Your task to perform on an android device: Search for Italian restaurants on Maps Image 0: 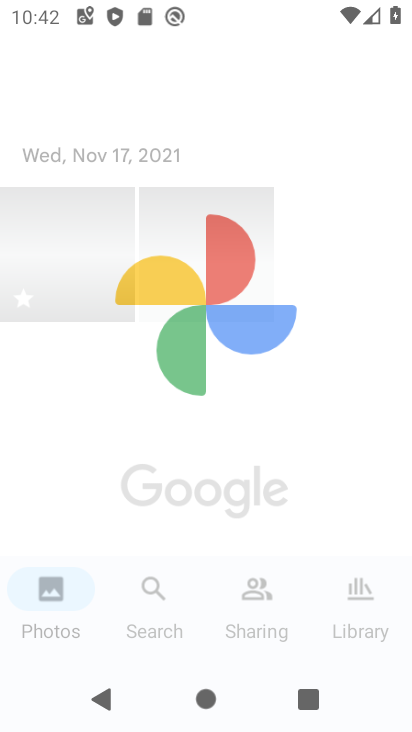
Step 0: drag from (359, 536) to (401, 263)
Your task to perform on an android device: Search for Italian restaurants on Maps Image 1: 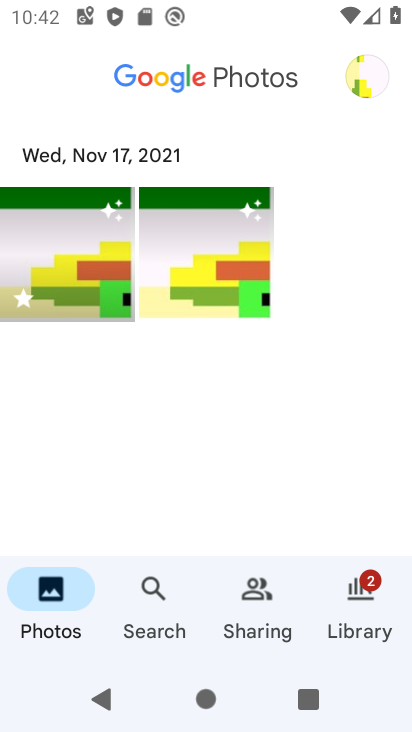
Step 1: press home button
Your task to perform on an android device: Search for Italian restaurants on Maps Image 2: 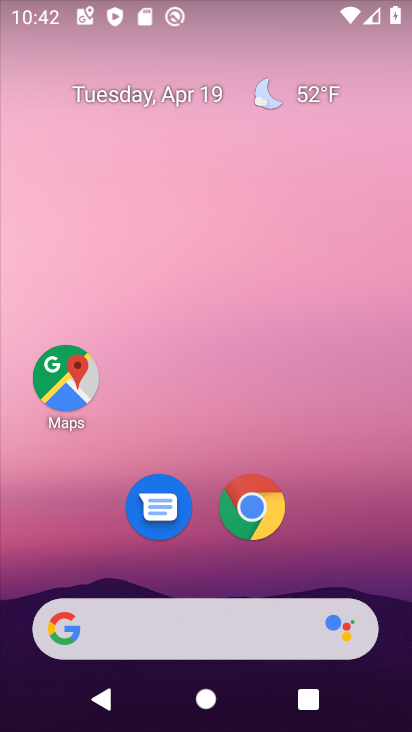
Step 2: drag from (320, 514) to (319, 71)
Your task to perform on an android device: Search for Italian restaurants on Maps Image 3: 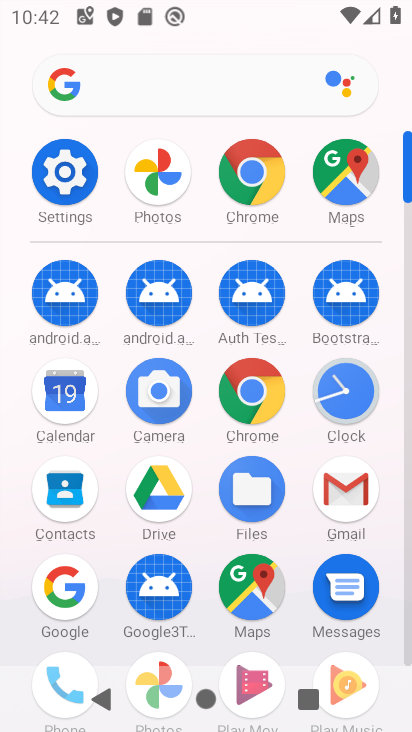
Step 3: click (252, 593)
Your task to perform on an android device: Search for Italian restaurants on Maps Image 4: 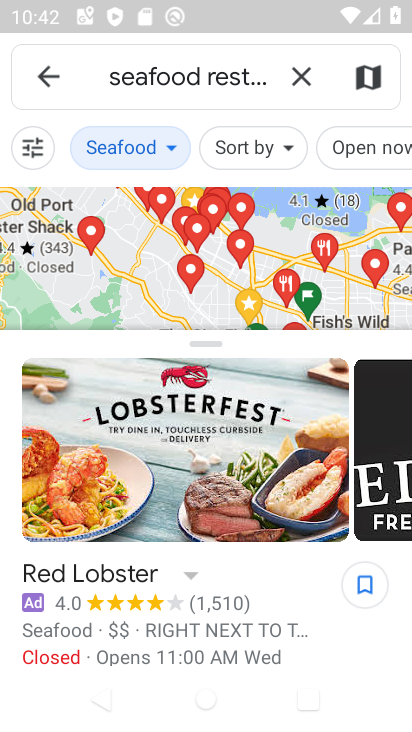
Step 4: click (223, 82)
Your task to perform on an android device: Search for Italian restaurants on Maps Image 5: 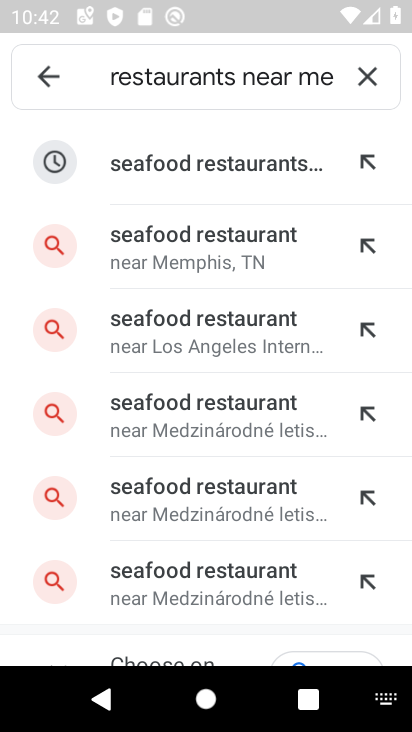
Step 5: click (372, 71)
Your task to perform on an android device: Search for Italian restaurants on Maps Image 6: 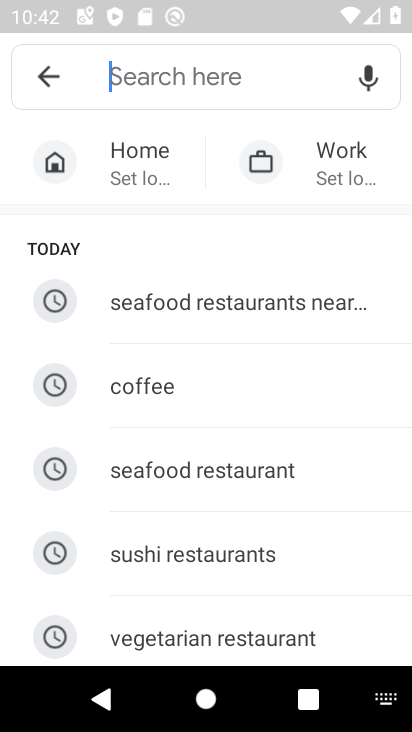
Step 6: click (220, 79)
Your task to perform on an android device: Search for Italian restaurants on Maps Image 7: 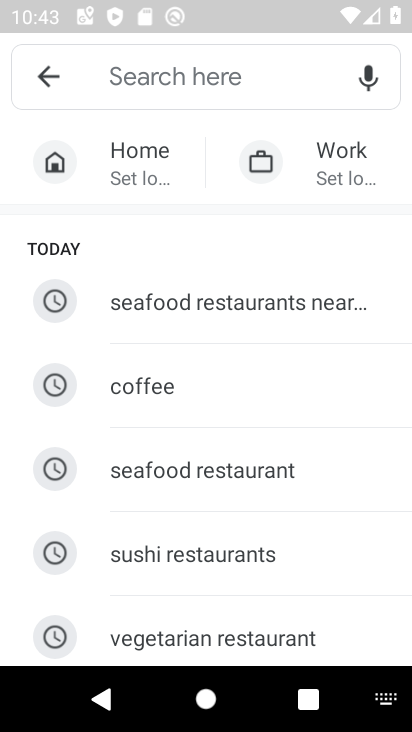
Step 7: type "italian restaurants"
Your task to perform on an android device: Search for Italian restaurants on Maps Image 8: 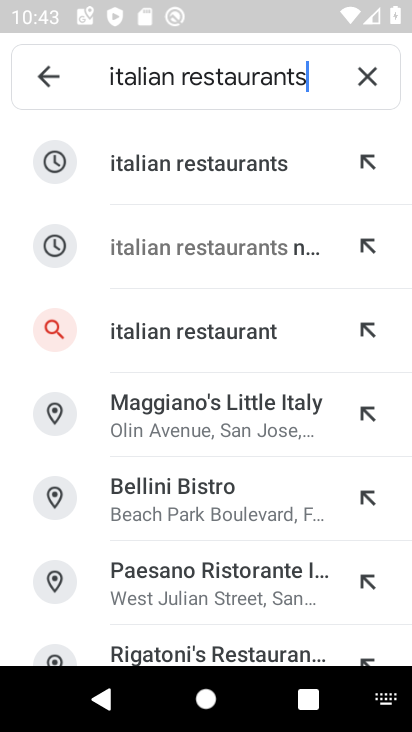
Step 8: click (261, 164)
Your task to perform on an android device: Search for Italian restaurants on Maps Image 9: 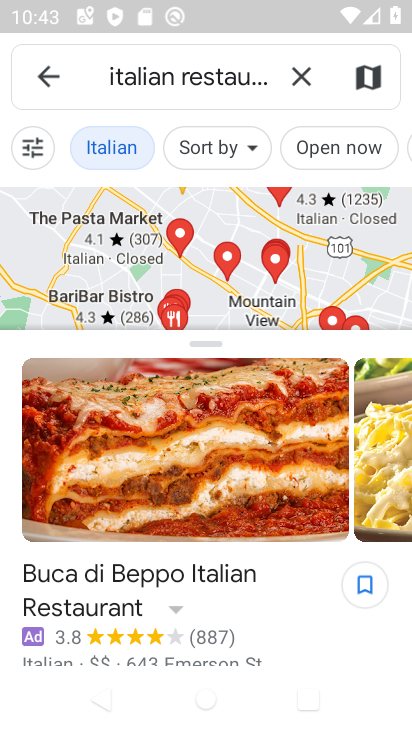
Step 9: task complete